Your task to perform on an android device: Turn off the flashlight Image 0: 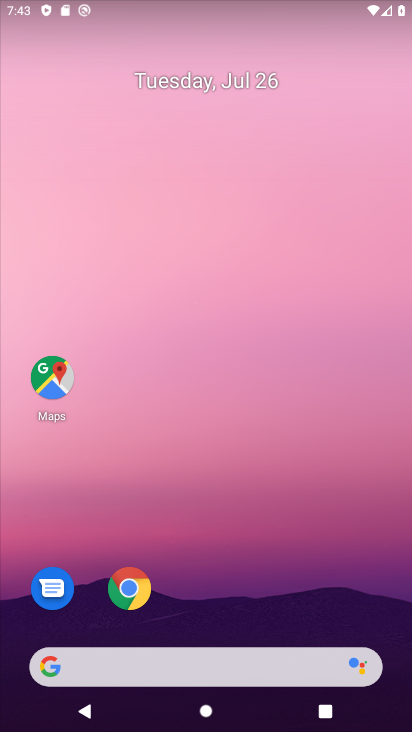
Step 0: drag from (332, 525) to (318, 0)
Your task to perform on an android device: Turn off the flashlight Image 1: 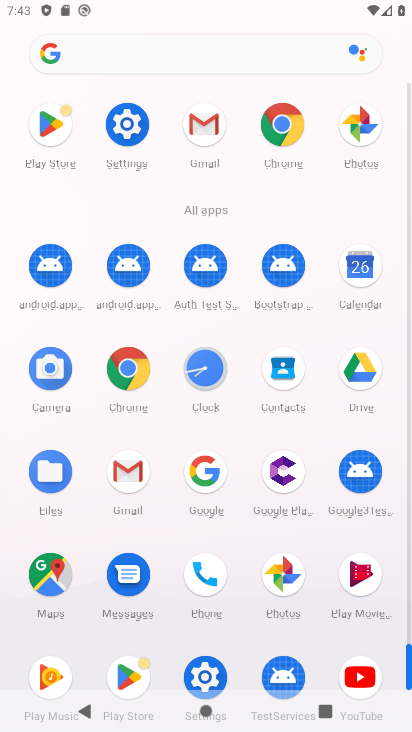
Step 1: click (137, 129)
Your task to perform on an android device: Turn off the flashlight Image 2: 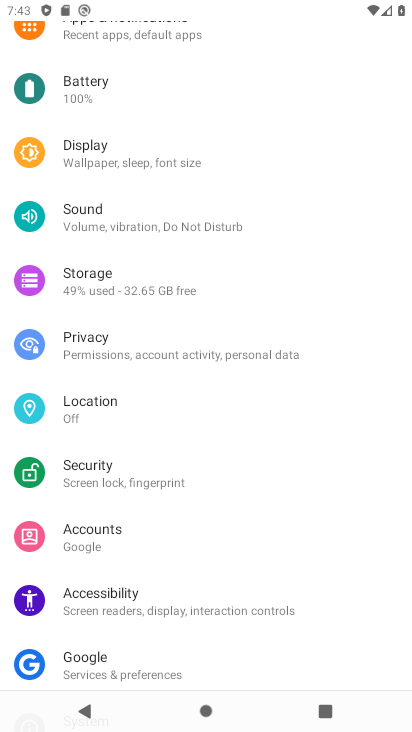
Step 2: click (137, 159)
Your task to perform on an android device: Turn off the flashlight Image 3: 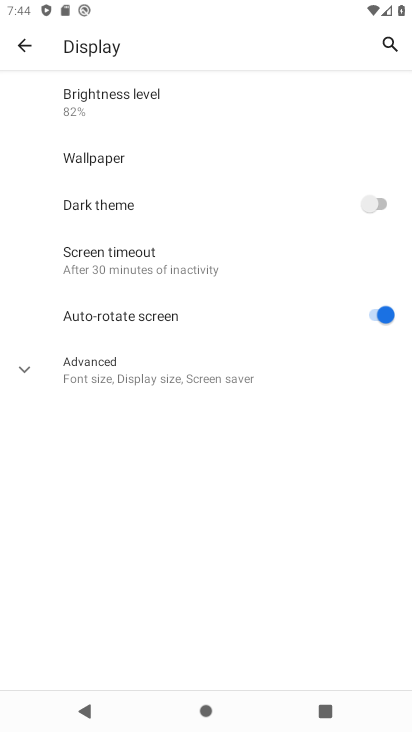
Step 3: click (121, 259)
Your task to perform on an android device: Turn off the flashlight Image 4: 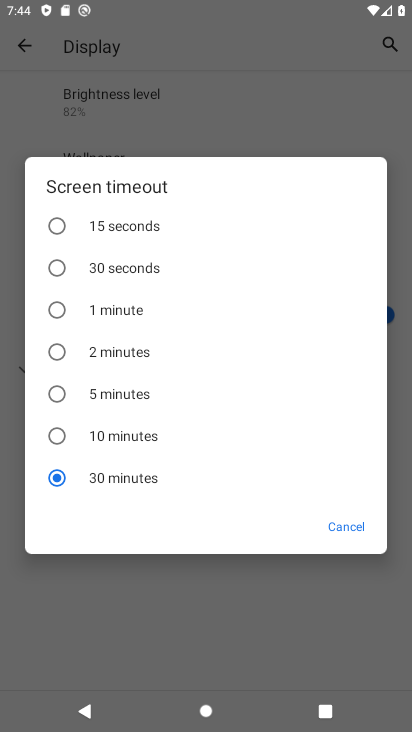
Step 4: task complete